Your task to perform on an android device: Look up the best rated gaming chair on Target. Image 0: 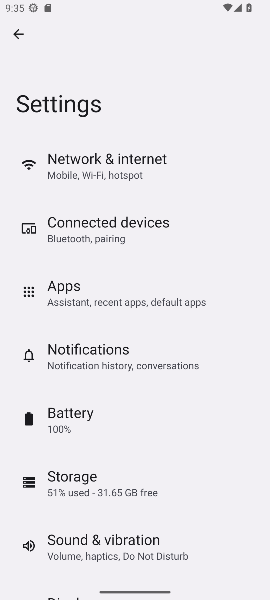
Step 0: press home button
Your task to perform on an android device: Look up the best rated gaming chair on Target. Image 1: 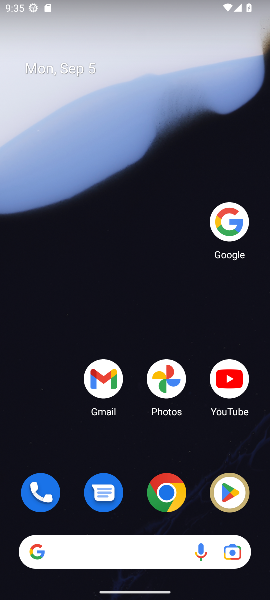
Step 1: click (229, 213)
Your task to perform on an android device: Look up the best rated gaming chair on Target. Image 2: 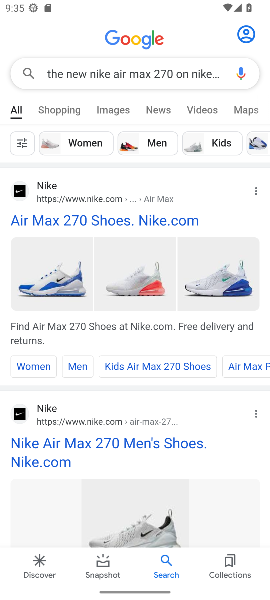
Step 2: click (210, 71)
Your task to perform on an android device: Look up the best rated gaming chair on Target. Image 3: 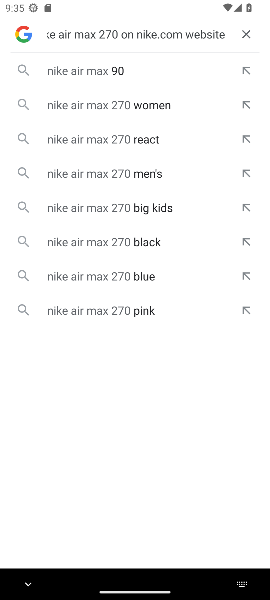
Step 3: click (249, 31)
Your task to perform on an android device: Look up the best rated gaming chair on Target. Image 4: 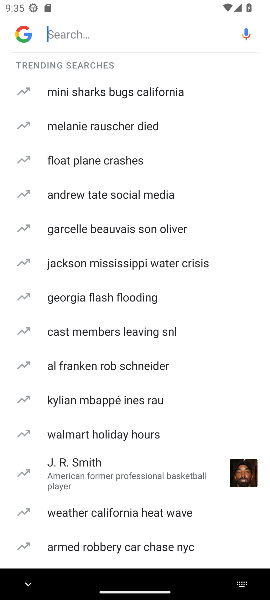
Step 4: click (139, 29)
Your task to perform on an android device: Look up the best rated gaming chair on Target. Image 5: 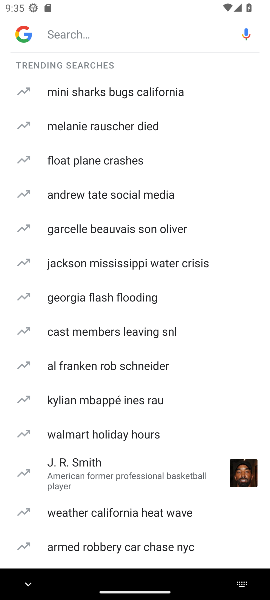
Step 5: type "best rated gaming chair on Target "
Your task to perform on an android device: Look up the best rated gaming chair on Target. Image 6: 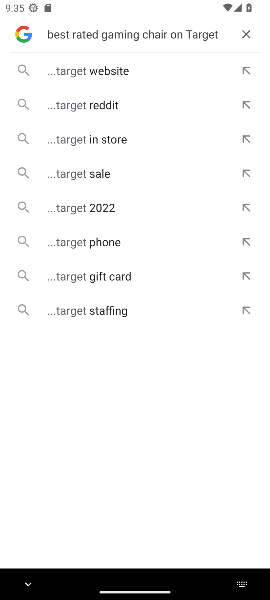
Step 6: click (77, 141)
Your task to perform on an android device: Look up the best rated gaming chair on Target. Image 7: 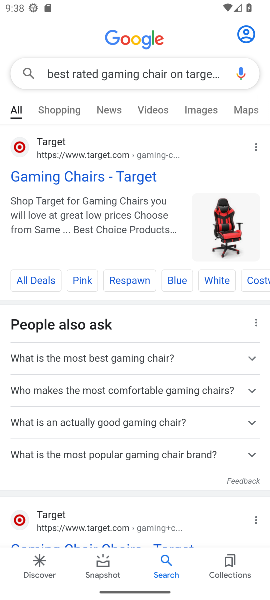
Step 7: task complete